Your task to perform on an android device: Play the last video I watched on Youtube Image 0: 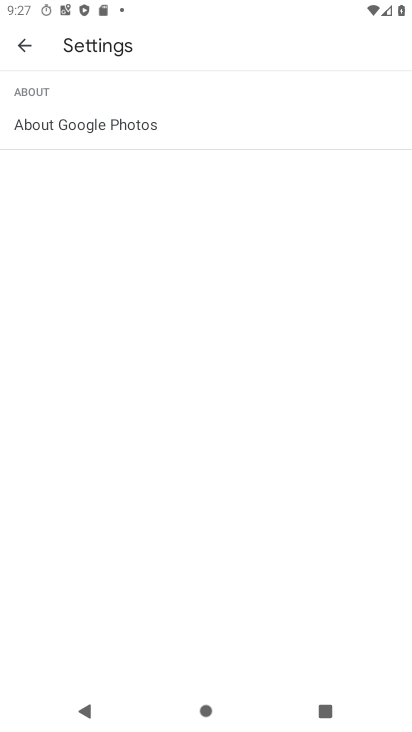
Step 0: press home button
Your task to perform on an android device: Play the last video I watched on Youtube Image 1: 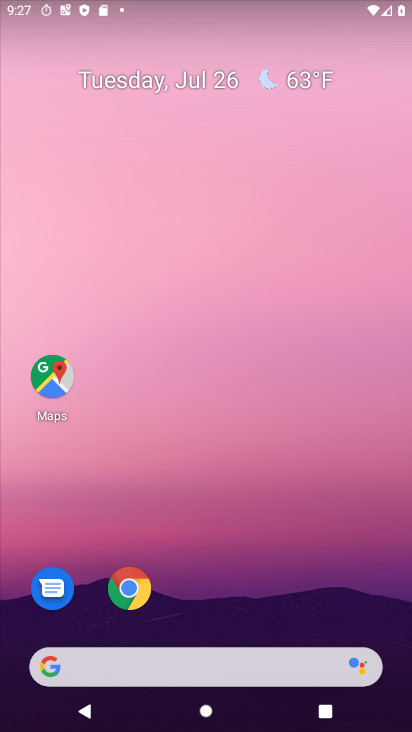
Step 1: drag from (233, 634) to (215, 34)
Your task to perform on an android device: Play the last video I watched on Youtube Image 2: 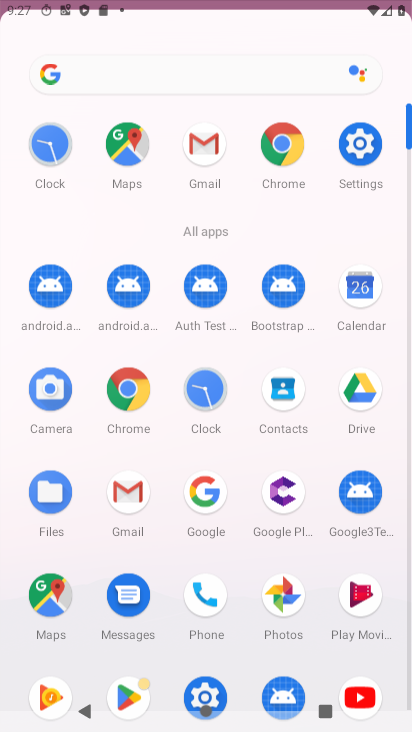
Step 2: click (185, 219)
Your task to perform on an android device: Play the last video I watched on Youtube Image 3: 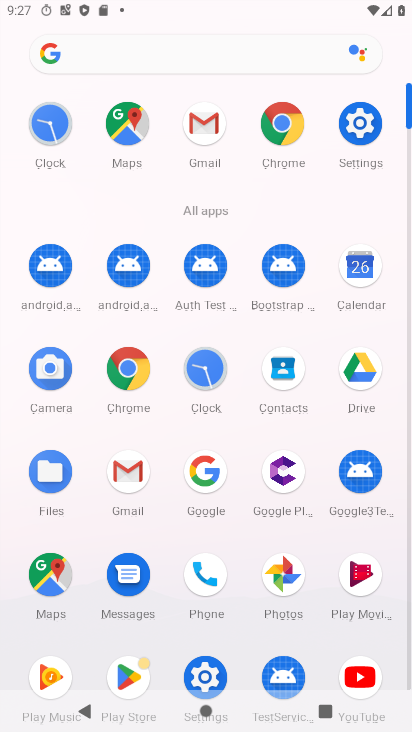
Step 3: click (343, 674)
Your task to perform on an android device: Play the last video I watched on Youtube Image 4: 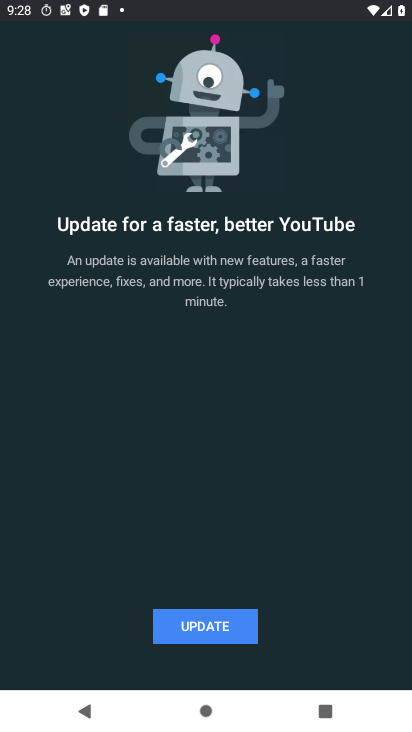
Step 4: click (230, 637)
Your task to perform on an android device: Play the last video I watched on Youtube Image 5: 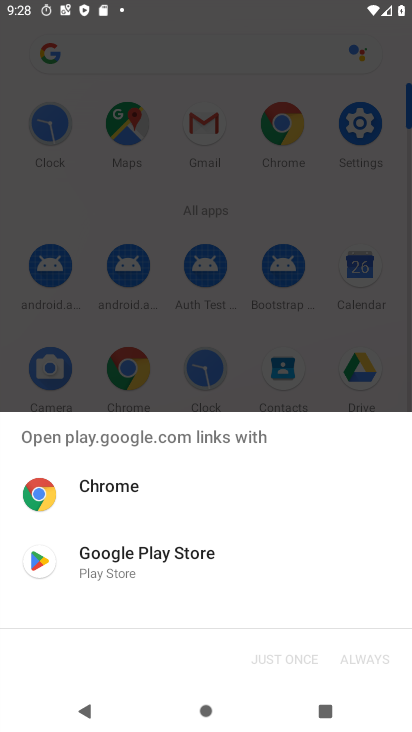
Step 5: click (155, 571)
Your task to perform on an android device: Play the last video I watched on Youtube Image 6: 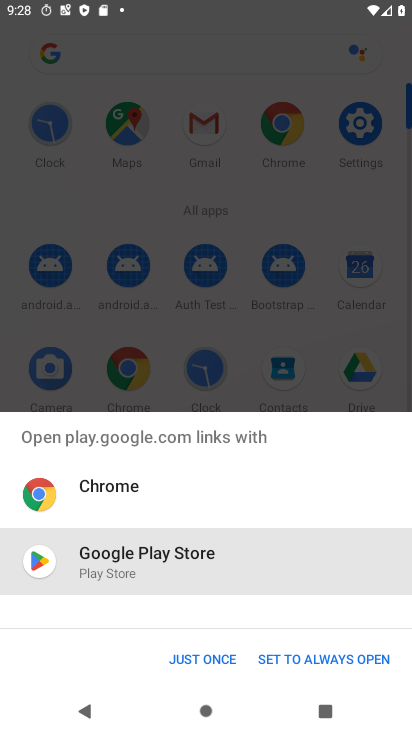
Step 6: click (198, 649)
Your task to perform on an android device: Play the last video I watched on Youtube Image 7: 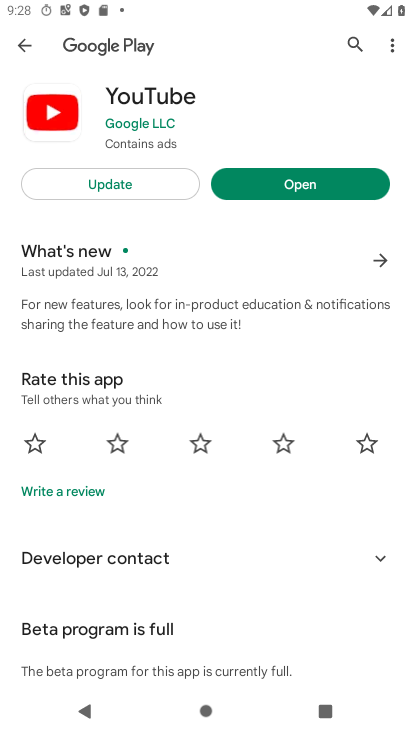
Step 7: click (129, 184)
Your task to perform on an android device: Play the last video I watched on Youtube Image 8: 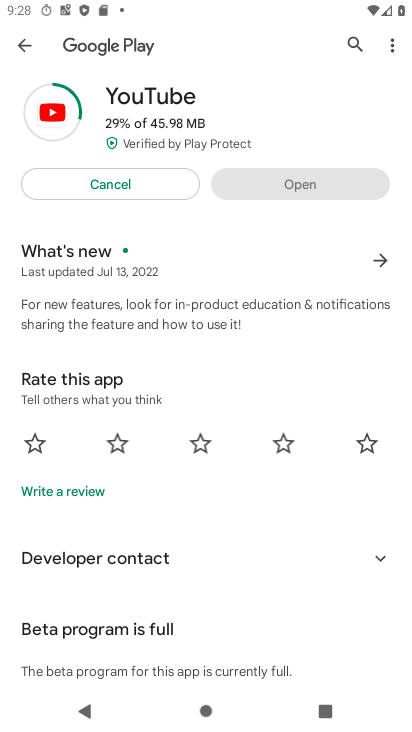
Step 8: click (287, 196)
Your task to perform on an android device: Play the last video I watched on Youtube Image 9: 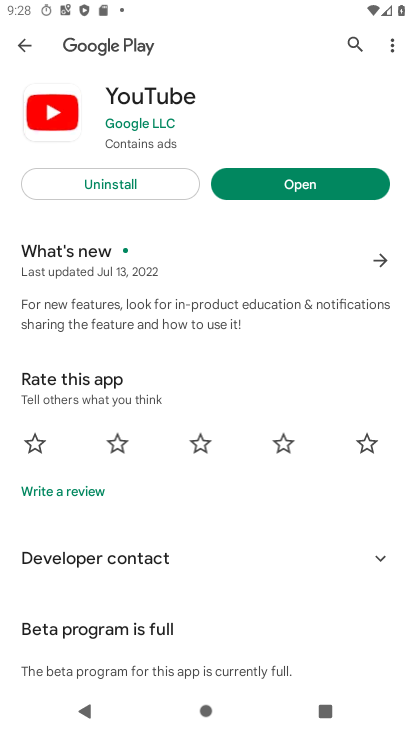
Step 9: click (352, 178)
Your task to perform on an android device: Play the last video I watched on Youtube Image 10: 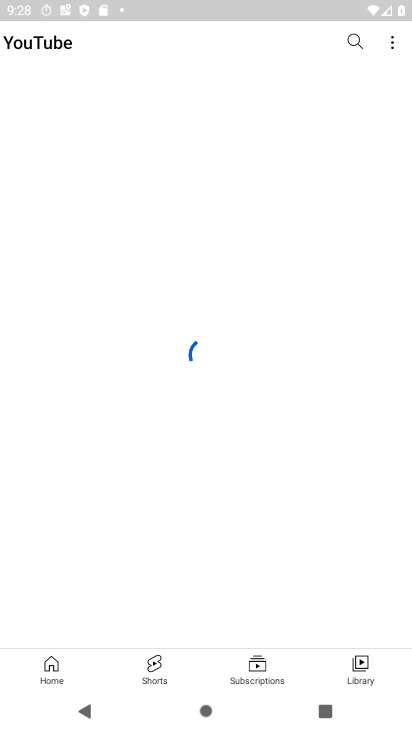
Step 10: click (366, 665)
Your task to perform on an android device: Play the last video I watched on Youtube Image 11: 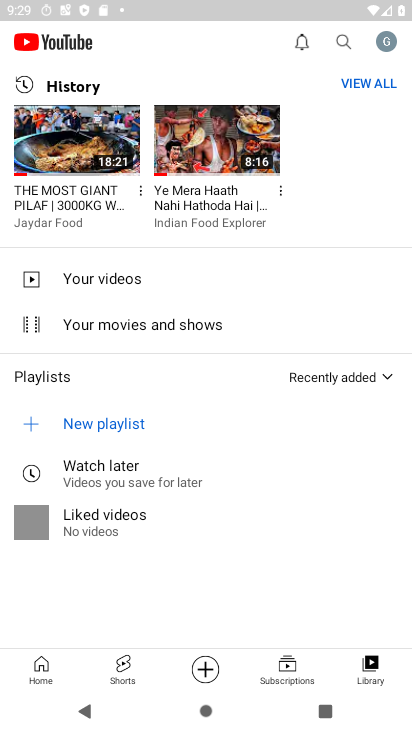
Step 11: click (76, 136)
Your task to perform on an android device: Play the last video I watched on Youtube Image 12: 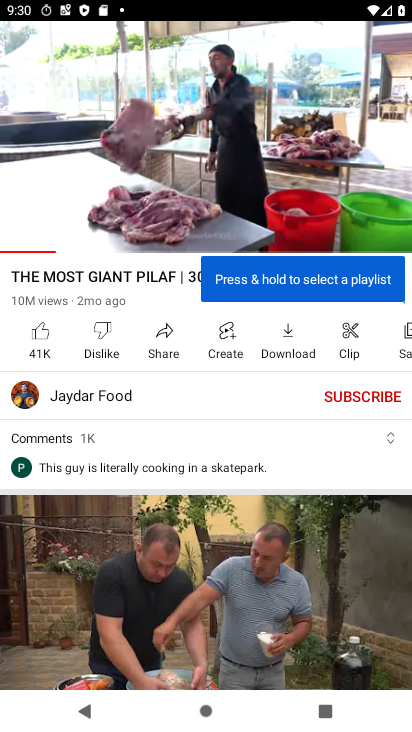
Step 12: task complete